Your task to perform on an android device: open device folders in google photos Image 0: 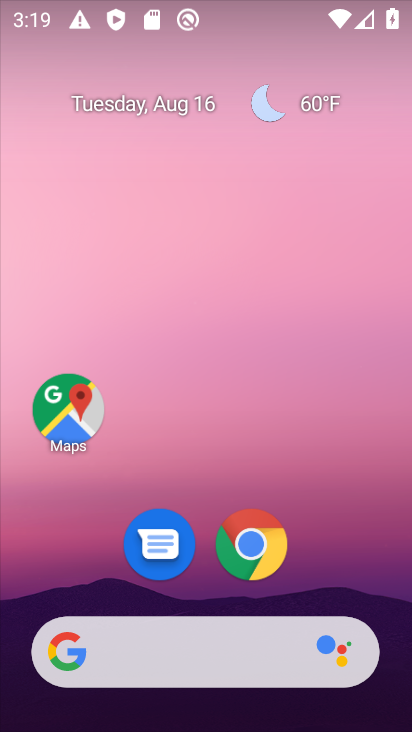
Step 0: drag from (381, 584) to (218, 26)
Your task to perform on an android device: open device folders in google photos Image 1: 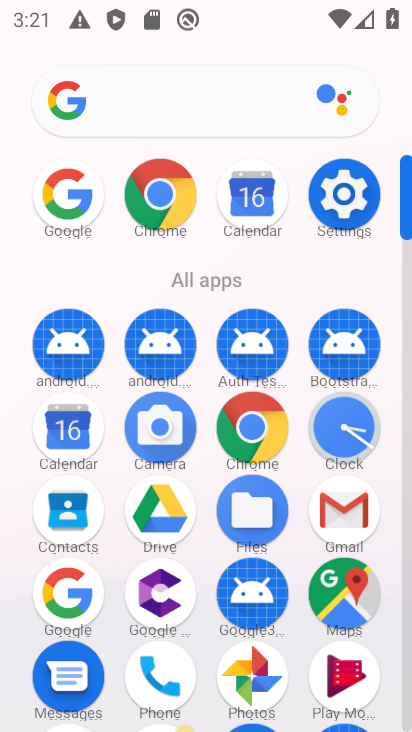
Step 1: click (246, 672)
Your task to perform on an android device: open device folders in google photos Image 2: 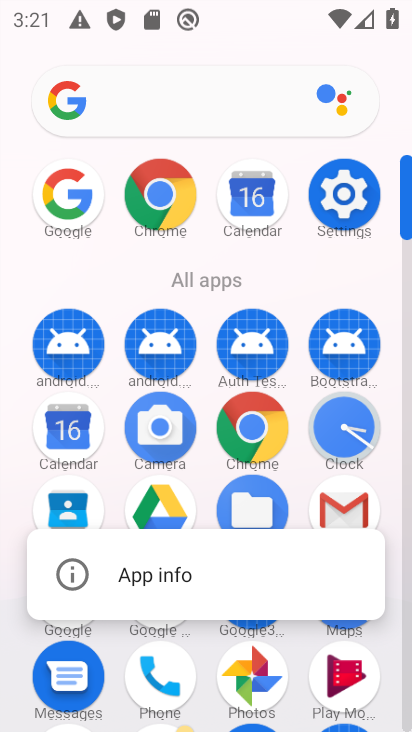
Step 2: click (238, 667)
Your task to perform on an android device: open device folders in google photos Image 3: 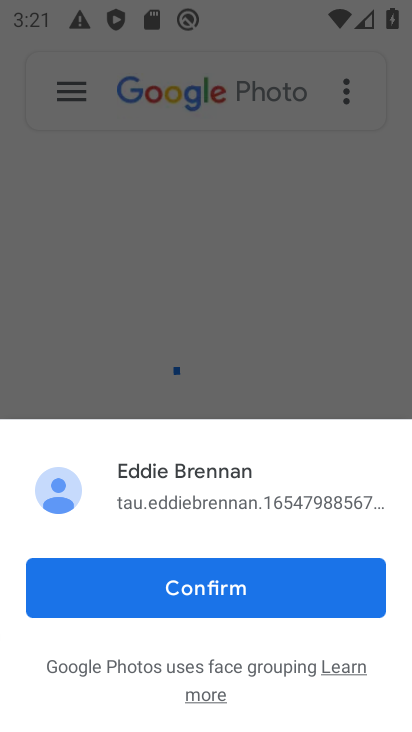
Step 3: task complete